Your task to perform on an android device: Add "logitech g502" to the cart on walmart Image 0: 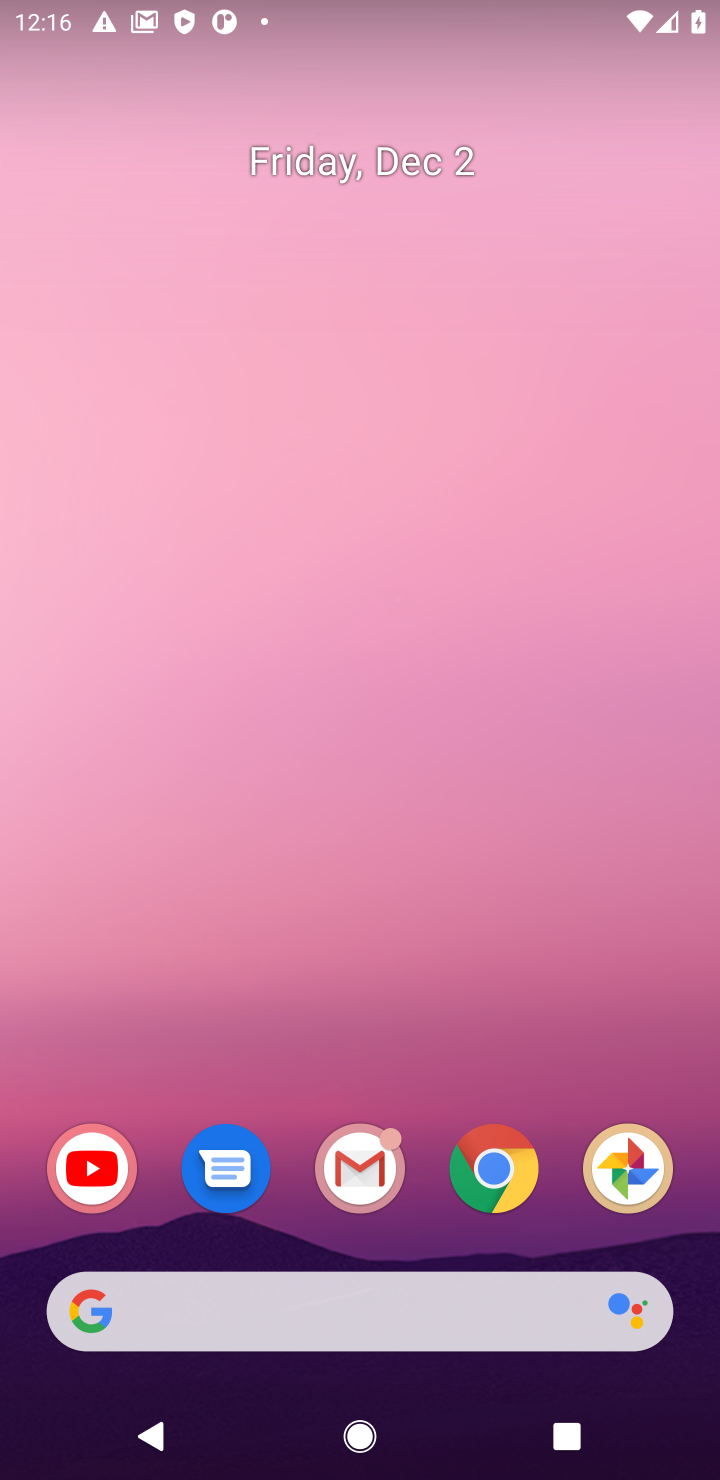
Step 0: click (503, 1168)
Your task to perform on an android device: Add "logitech g502" to the cart on walmart Image 1: 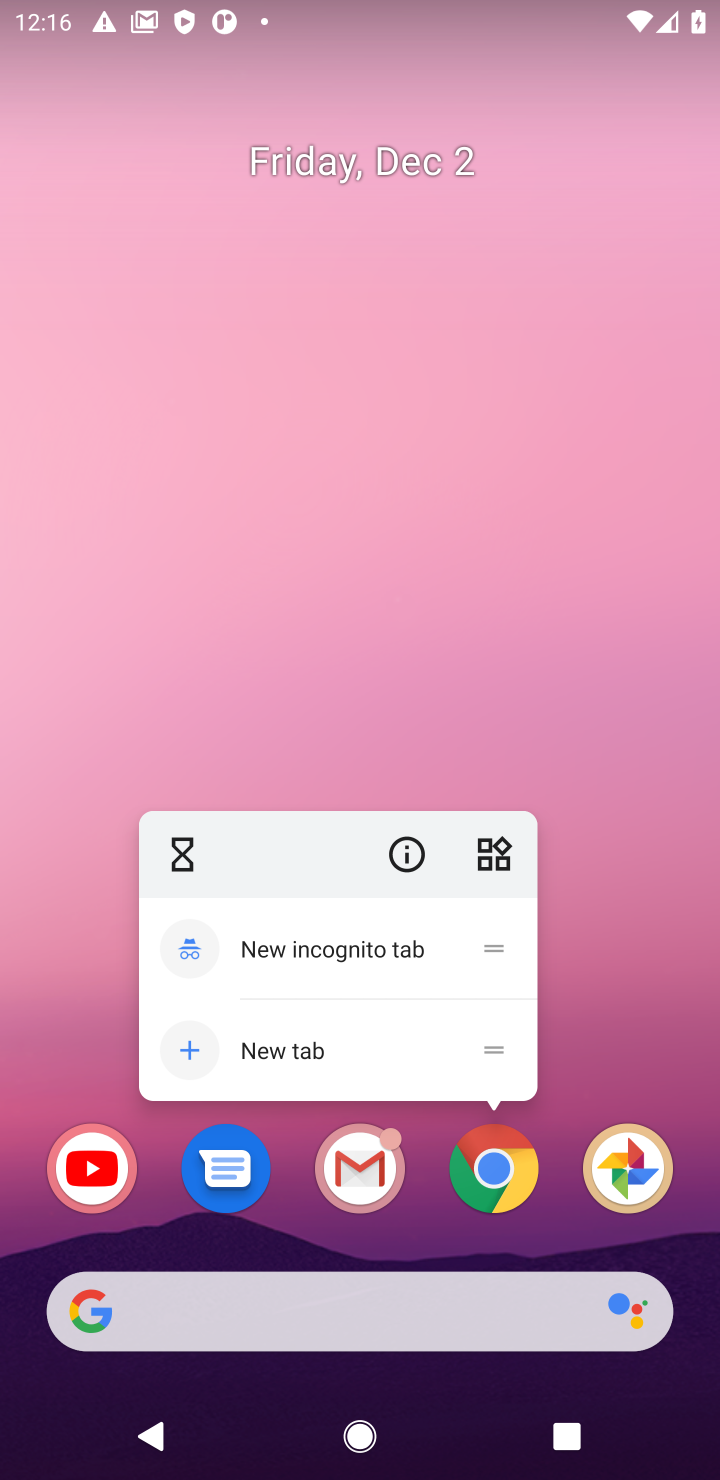
Step 1: click (503, 1168)
Your task to perform on an android device: Add "logitech g502" to the cart on walmart Image 2: 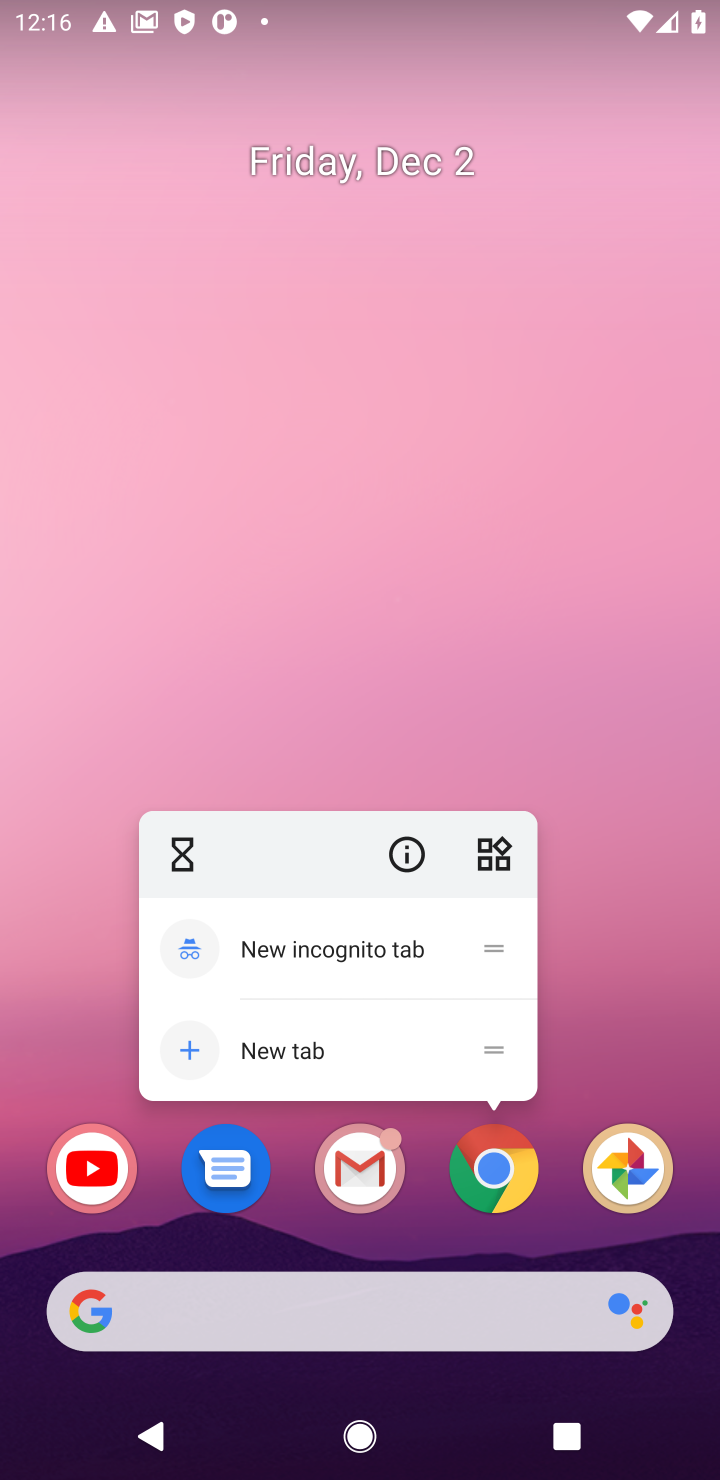
Step 2: click (503, 1168)
Your task to perform on an android device: Add "logitech g502" to the cart on walmart Image 3: 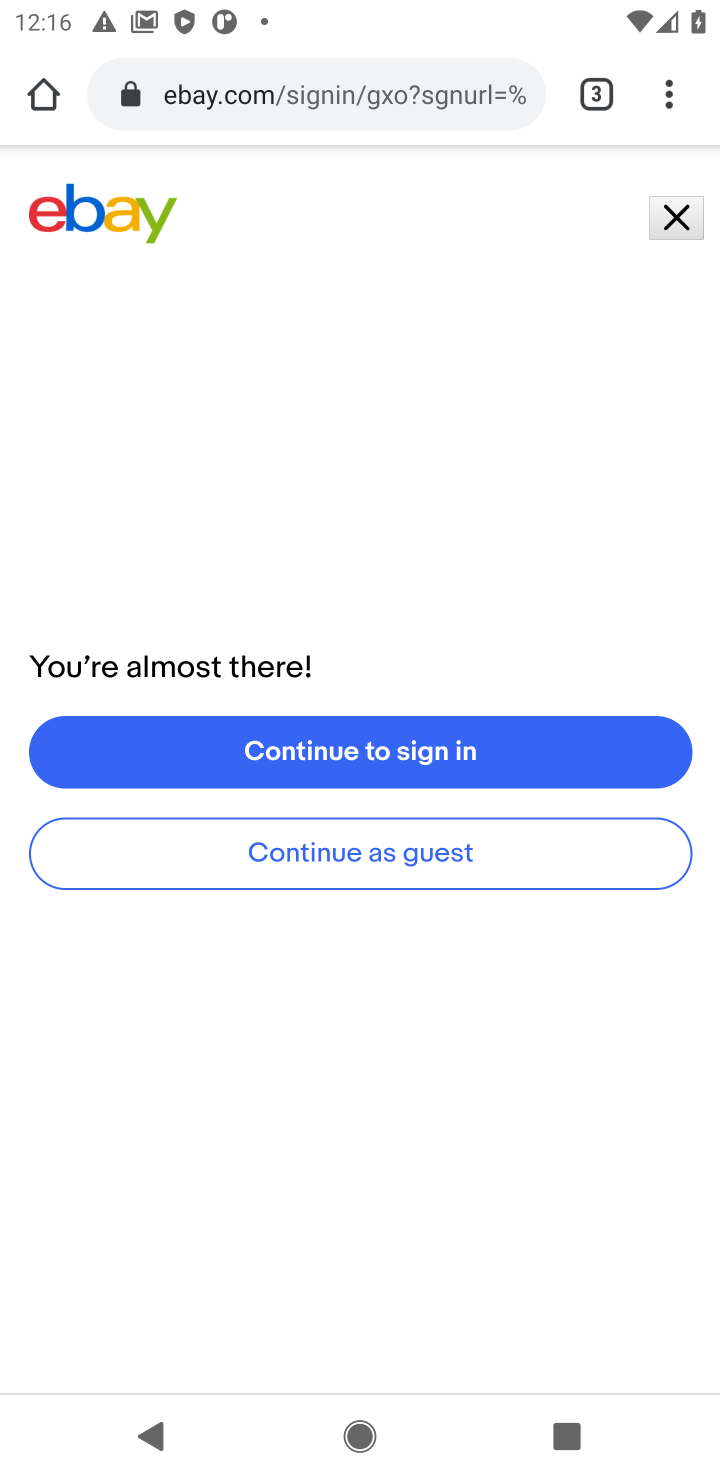
Step 3: click (317, 107)
Your task to perform on an android device: Add "logitech g502" to the cart on walmart Image 4: 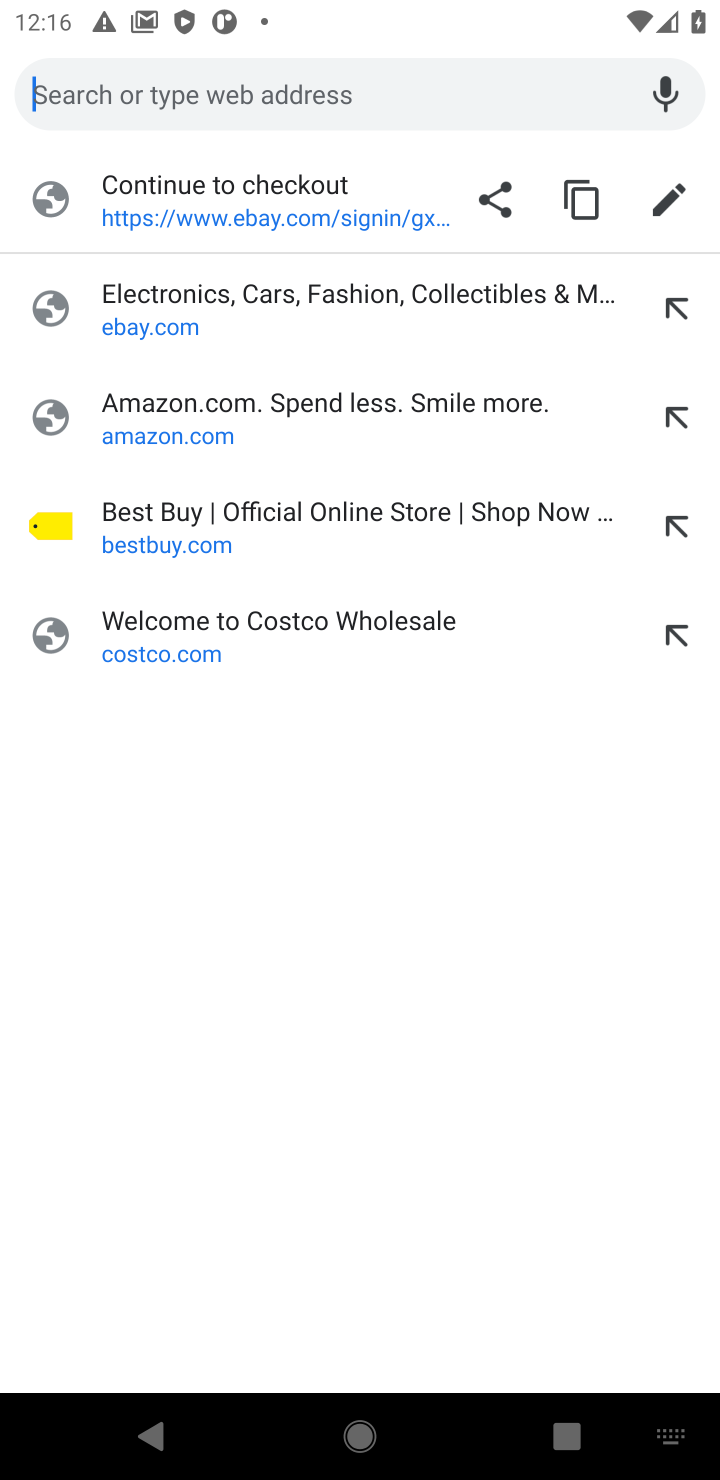
Step 4: type "walmart.com"
Your task to perform on an android device: Add "logitech g502" to the cart on walmart Image 5: 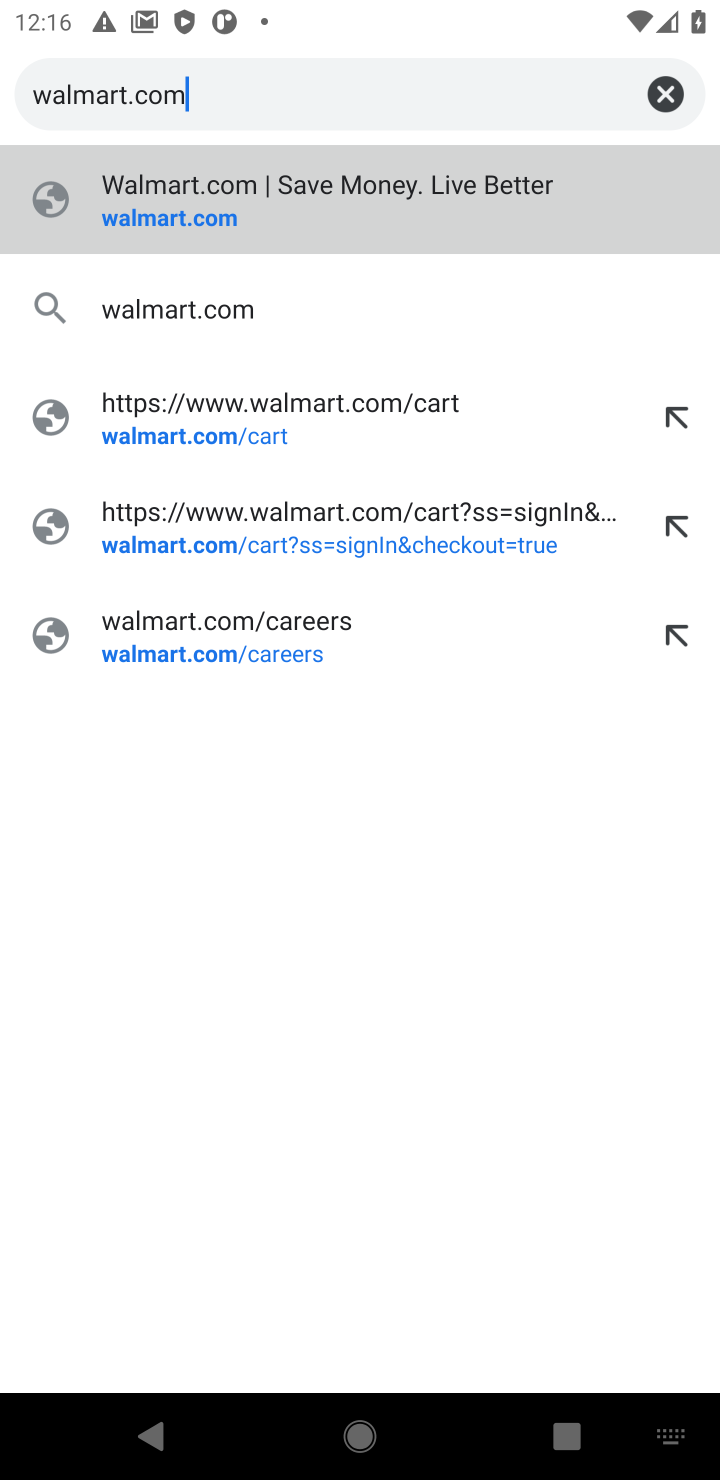
Step 5: click (149, 211)
Your task to perform on an android device: Add "logitech g502" to the cart on walmart Image 6: 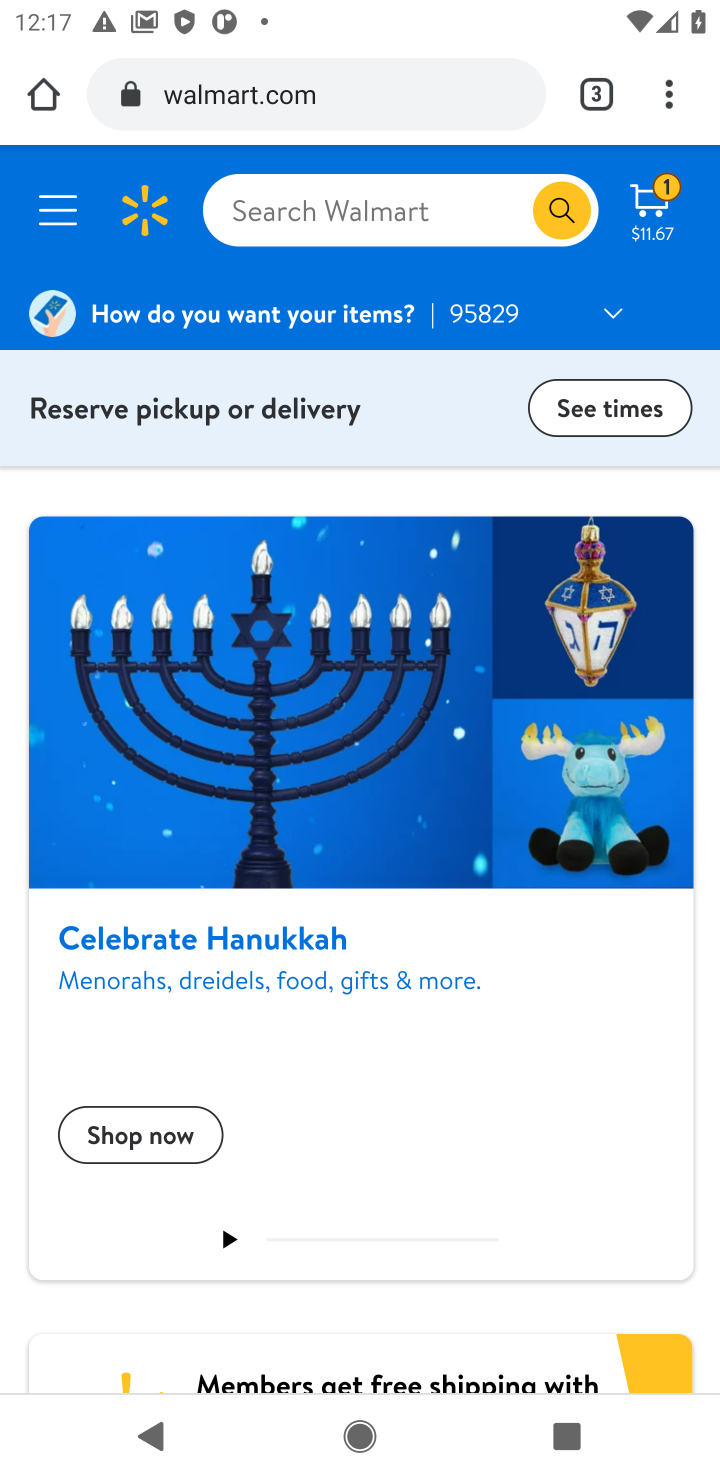
Step 6: click (260, 225)
Your task to perform on an android device: Add "logitech g502" to the cart on walmart Image 7: 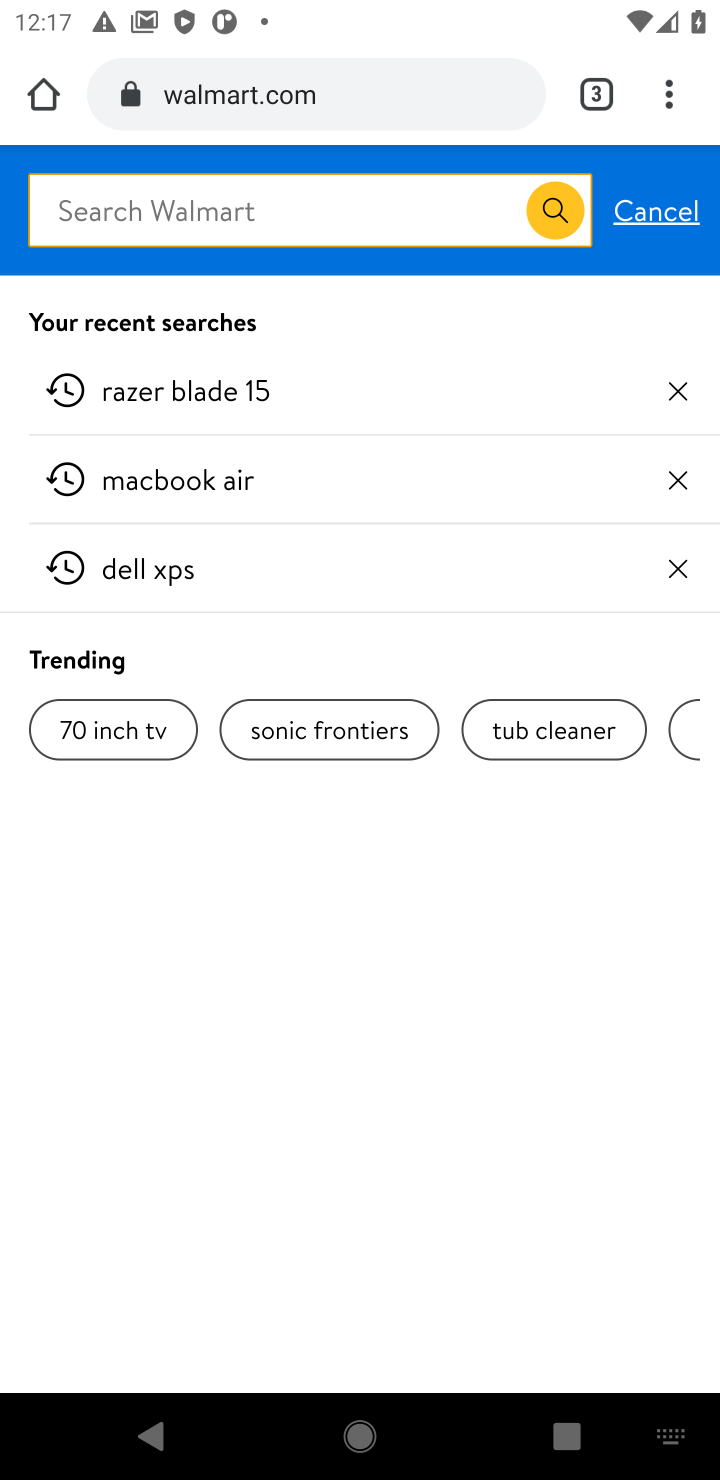
Step 7: type "logitech g502"
Your task to perform on an android device: Add "logitech g502" to the cart on walmart Image 8: 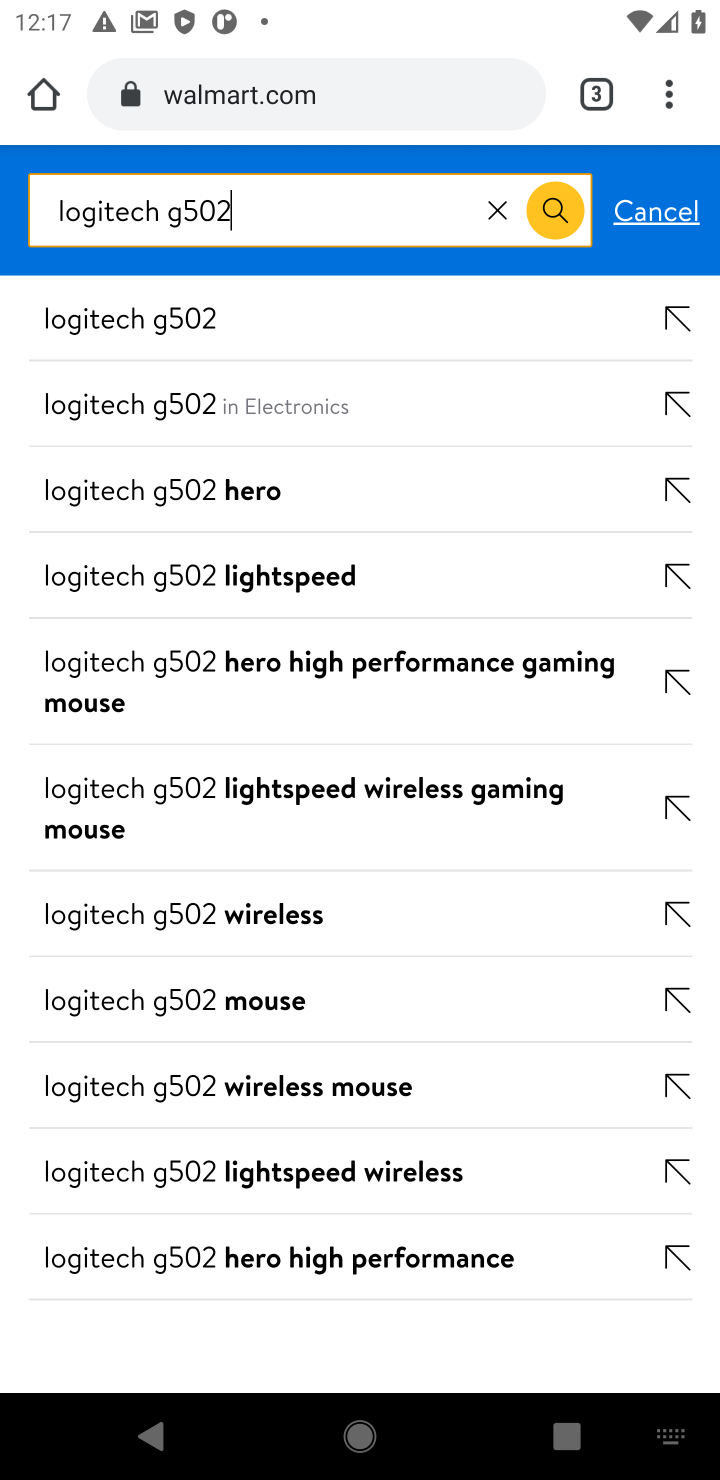
Step 8: click (161, 322)
Your task to perform on an android device: Add "logitech g502" to the cart on walmart Image 9: 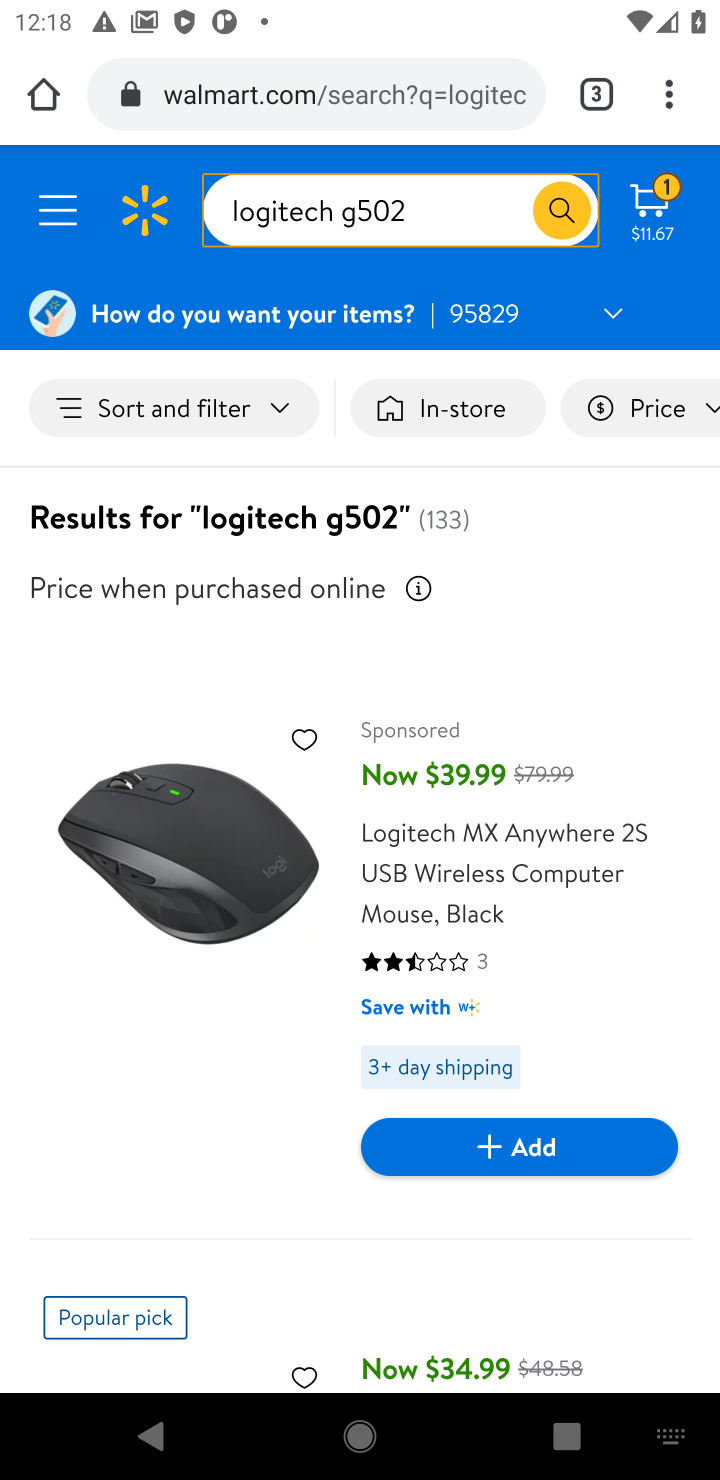
Step 9: drag from (174, 901) to (158, 441)
Your task to perform on an android device: Add "logitech g502" to the cart on walmart Image 10: 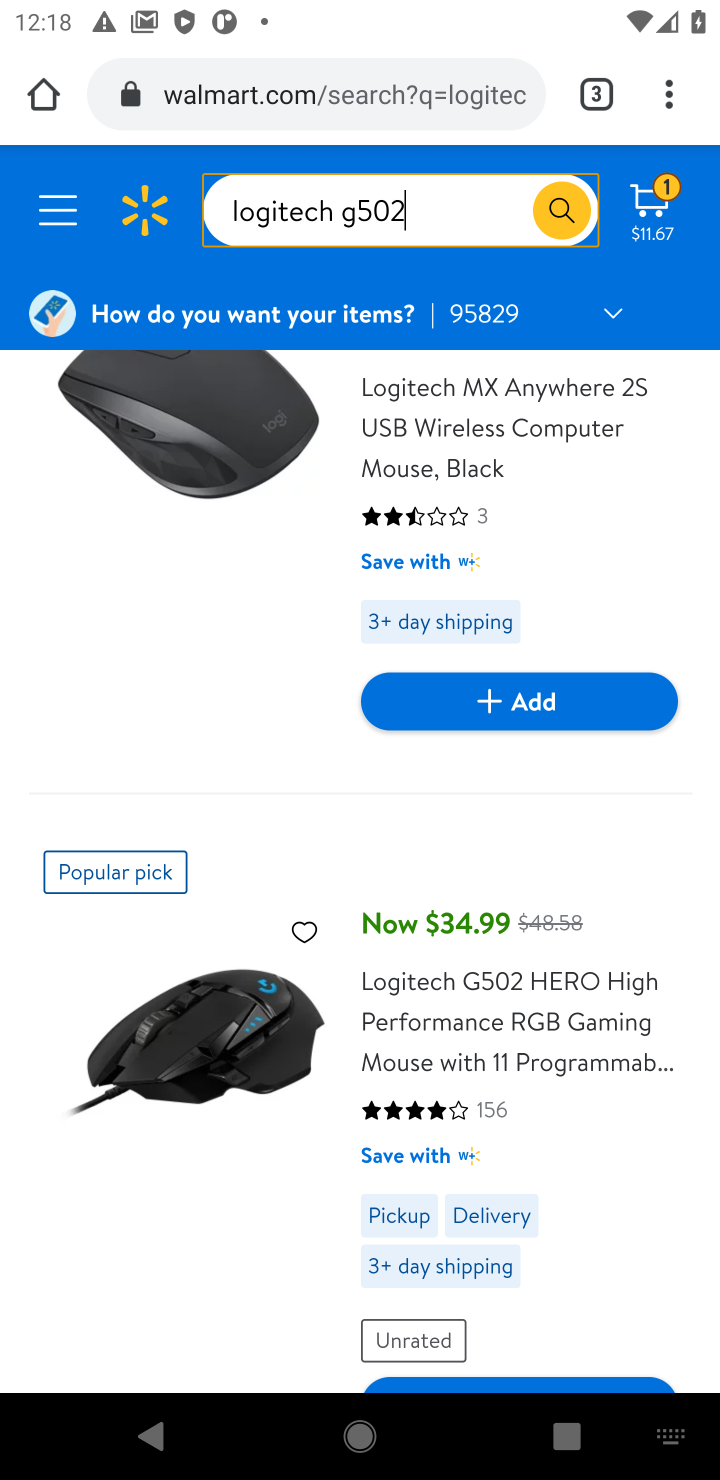
Step 10: drag from (171, 1135) to (146, 571)
Your task to perform on an android device: Add "logitech g502" to the cart on walmart Image 11: 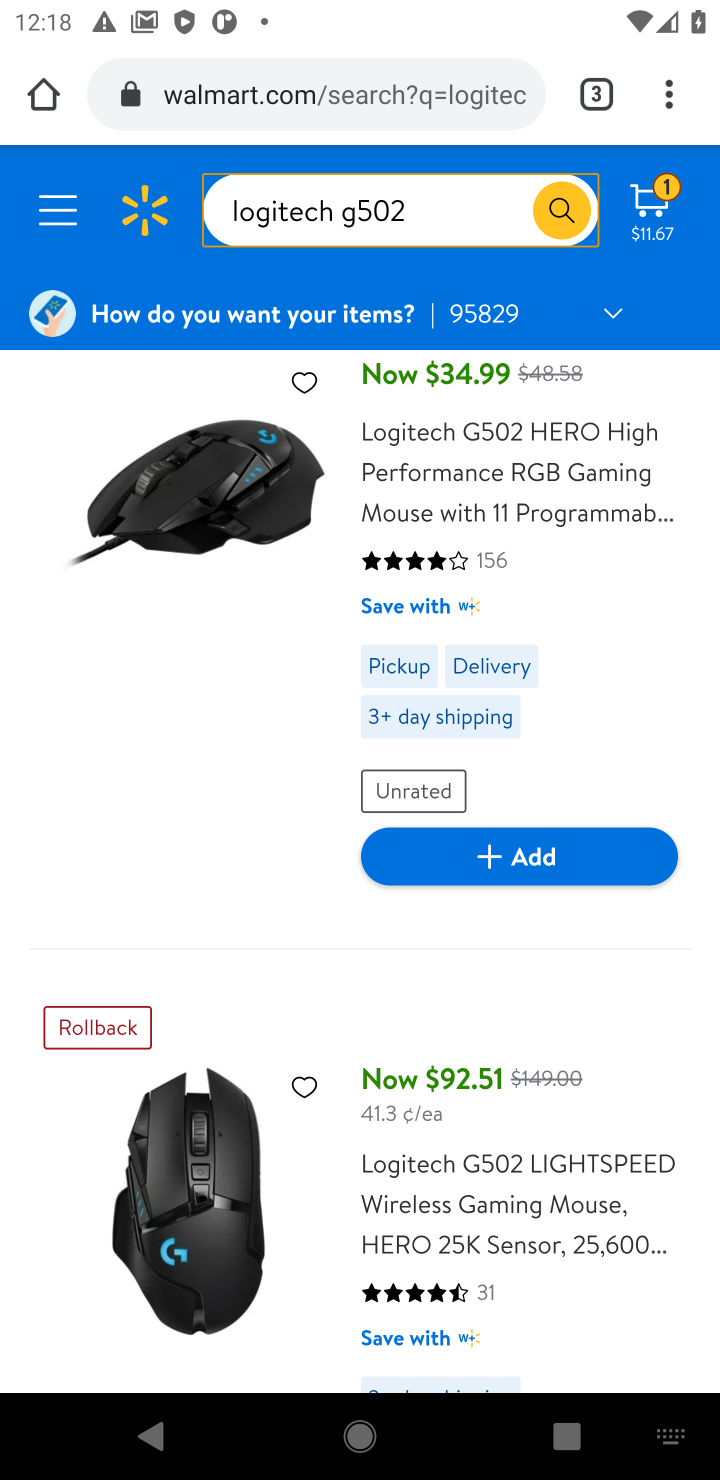
Step 11: click (440, 516)
Your task to perform on an android device: Add "logitech g502" to the cart on walmart Image 12: 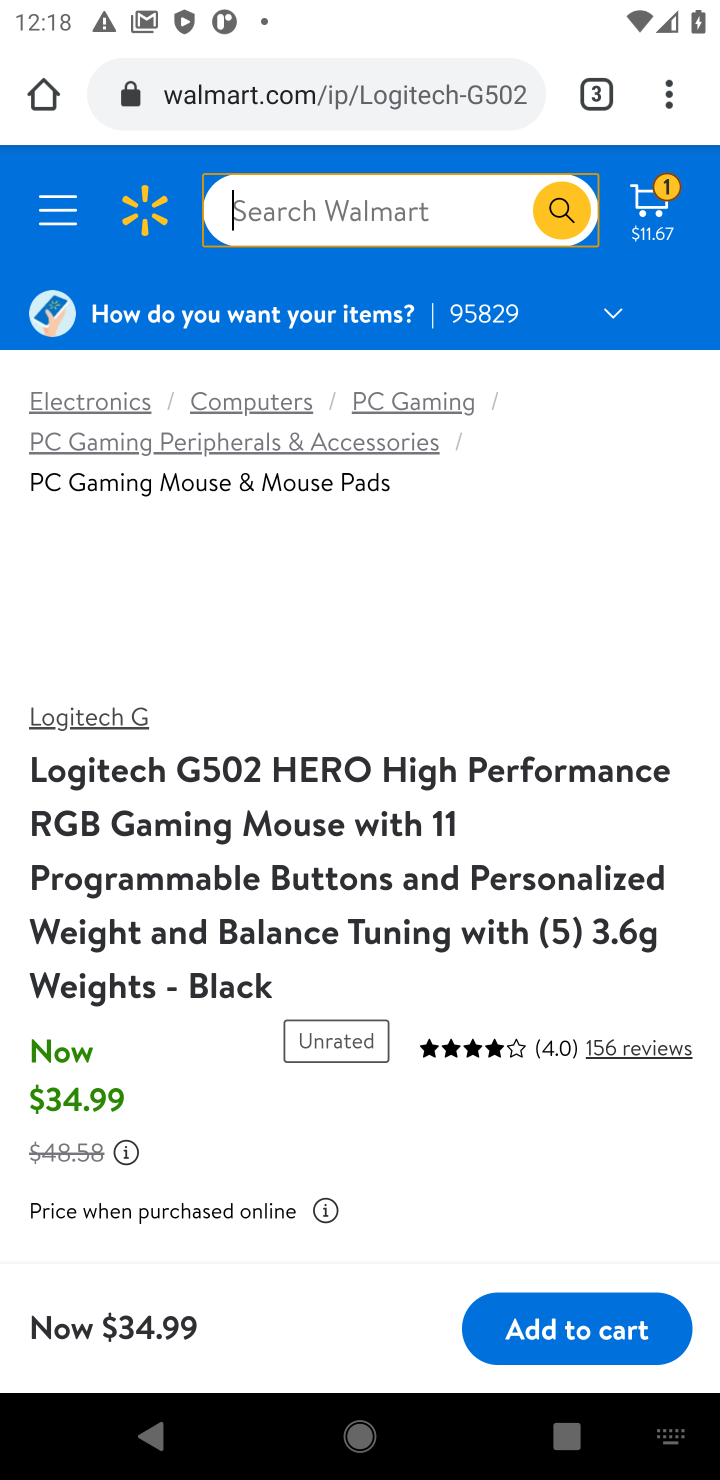
Step 12: click (562, 1331)
Your task to perform on an android device: Add "logitech g502" to the cart on walmart Image 13: 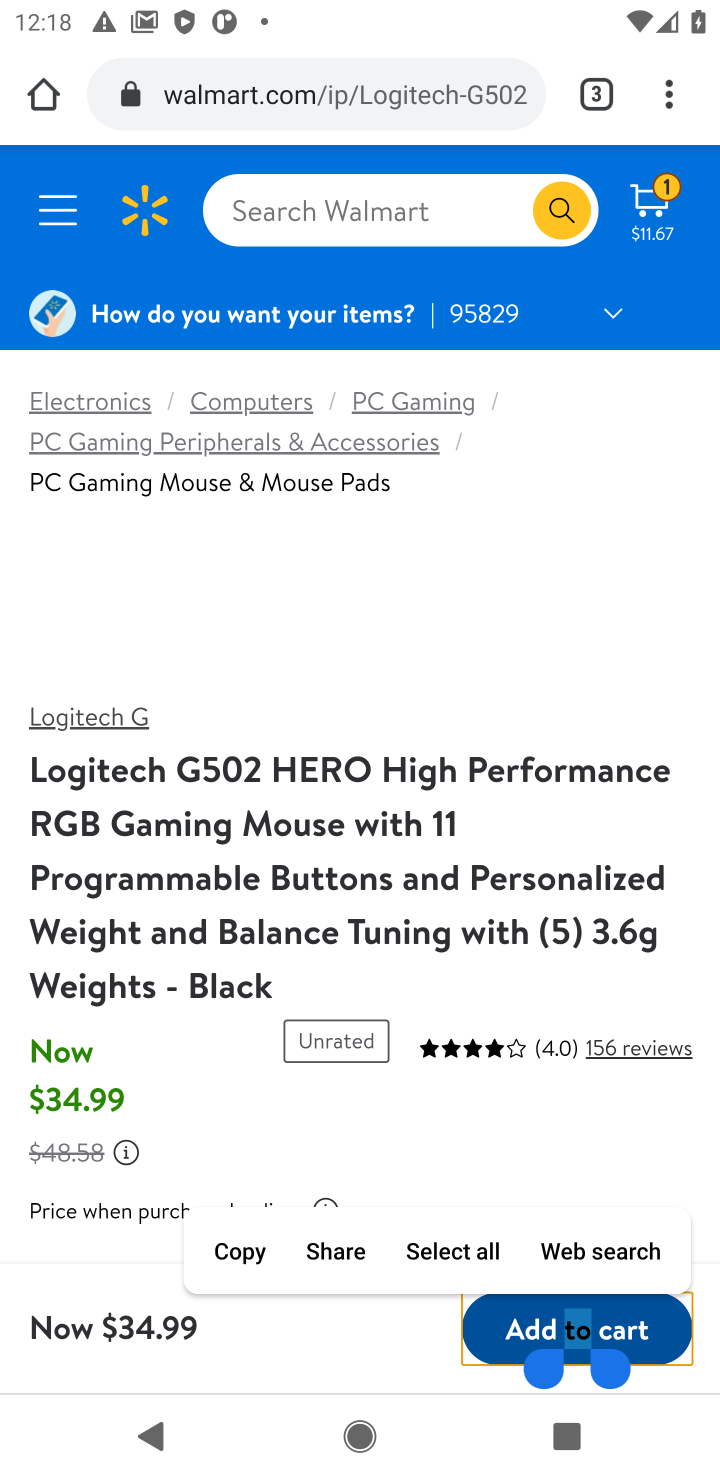
Step 13: click (603, 1332)
Your task to perform on an android device: Add "logitech g502" to the cart on walmart Image 14: 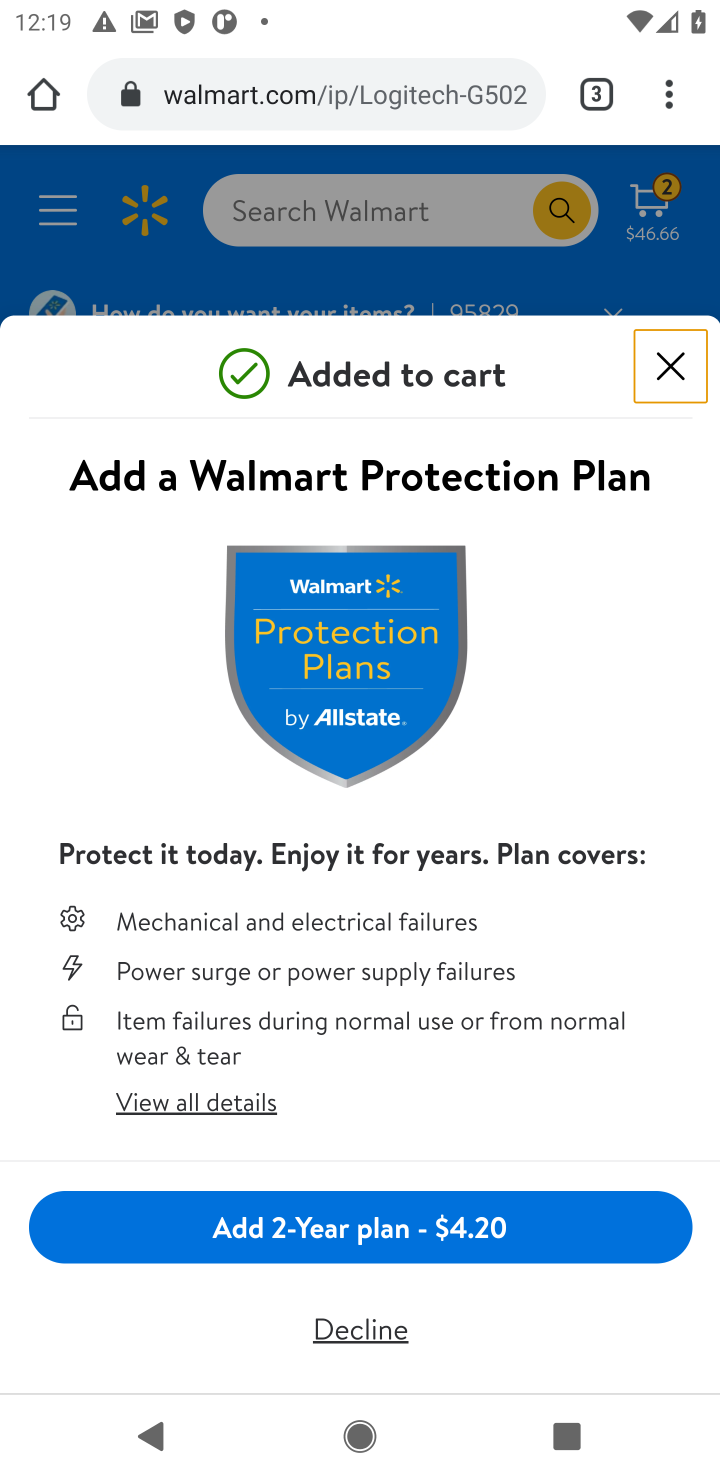
Step 14: click (671, 380)
Your task to perform on an android device: Add "logitech g502" to the cart on walmart Image 15: 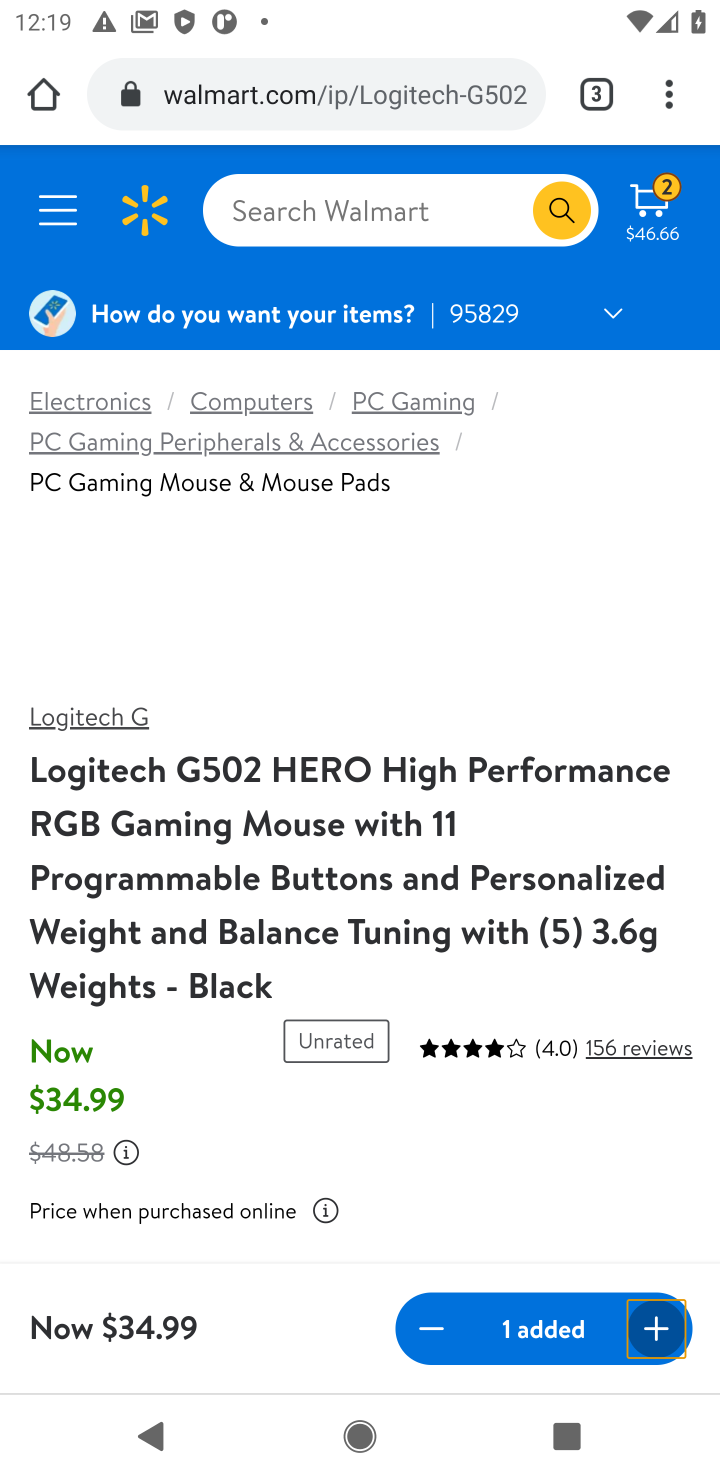
Step 15: task complete